Your task to perform on an android device: refresh tabs in the chrome app Image 0: 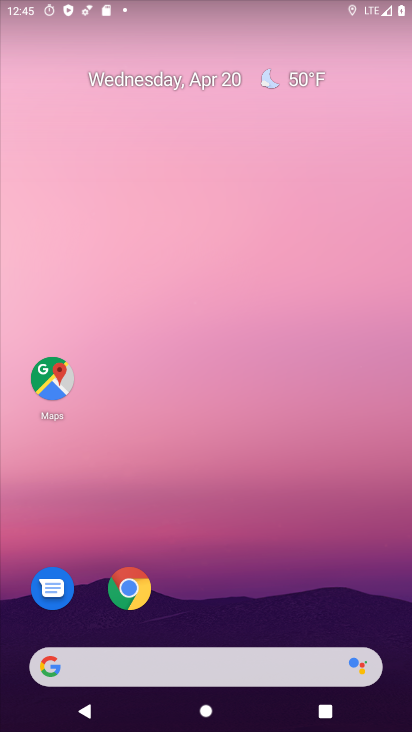
Step 0: click (128, 575)
Your task to perform on an android device: refresh tabs in the chrome app Image 1: 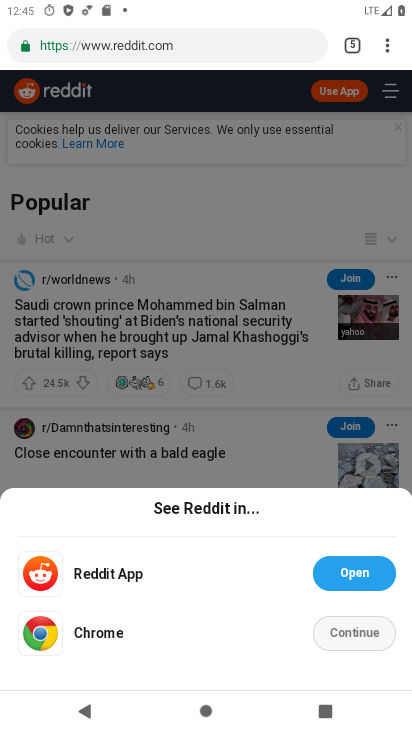
Step 1: click (384, 53)
Your task to perform on an android device: refresh tabs in the chrome app Image 2: 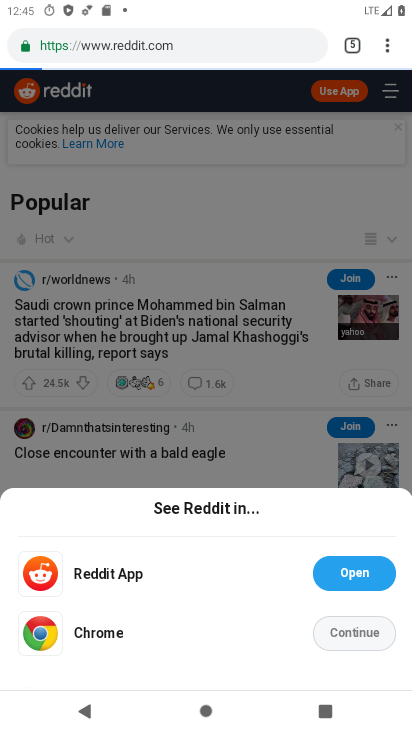
Step 2: click (380, 40)
Your task to perform on an android device: refresh tabs in the chrome app Image 3: 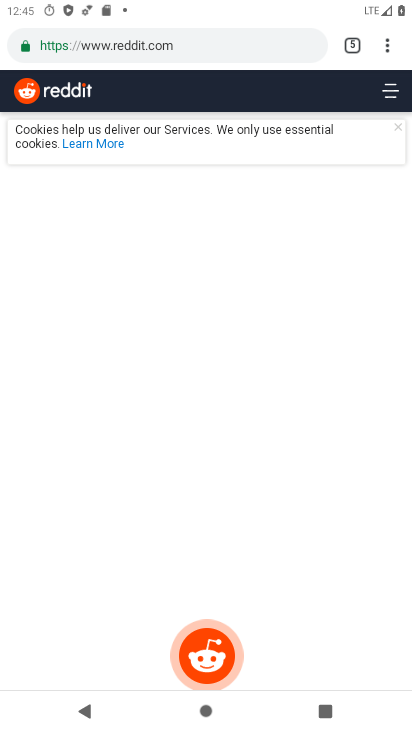
Step 3: task complete